Your task to perform on an android device: Go to eBay Image 0: 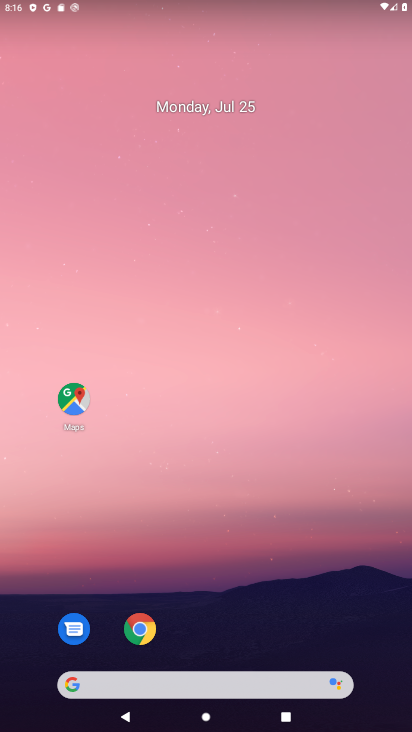
Step 0: click (140, 631)
Your task to perform on an android device: Go to eBay Image 1: 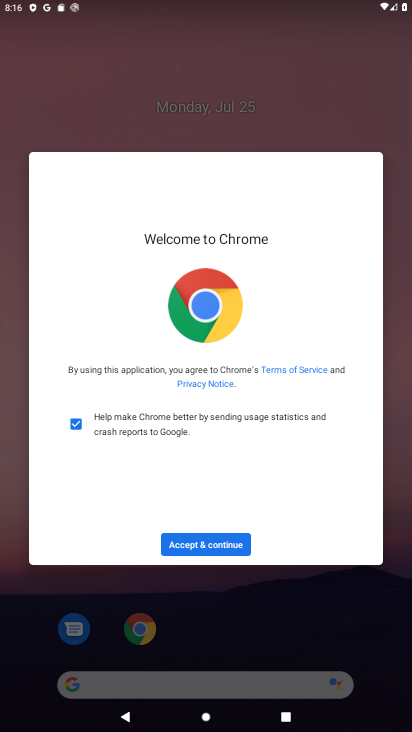
Step 1: click (216, 537)
Your task to perform on an android device: Go to eBay Image 2: 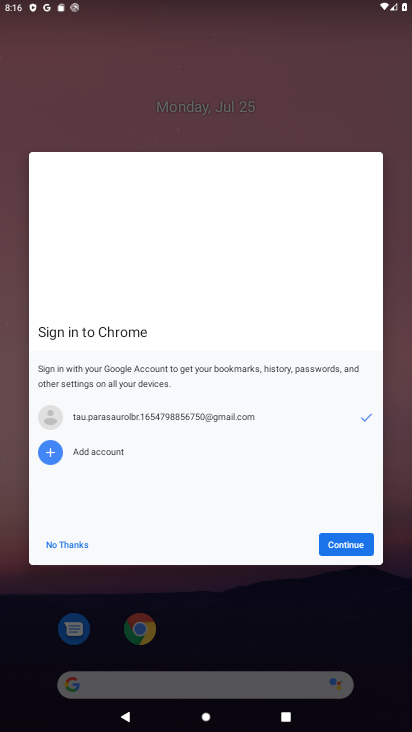
Step 2: click (329, 545)
Your task to perform on an android device: Go to eBay Image 3: 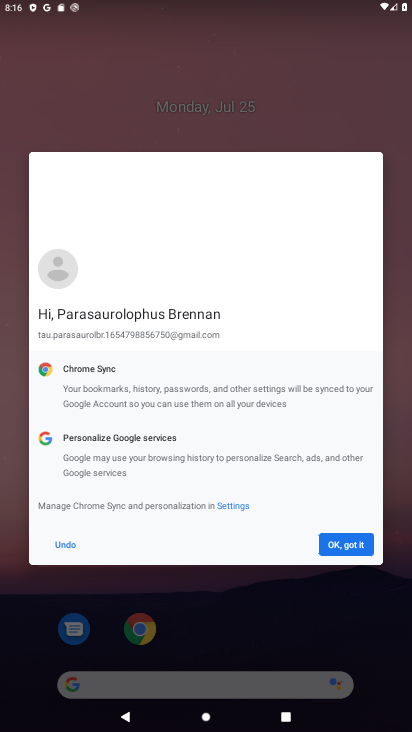
Step 3: click (329, 545)
Your task to perform on an android device: Go to eBay Image 4: 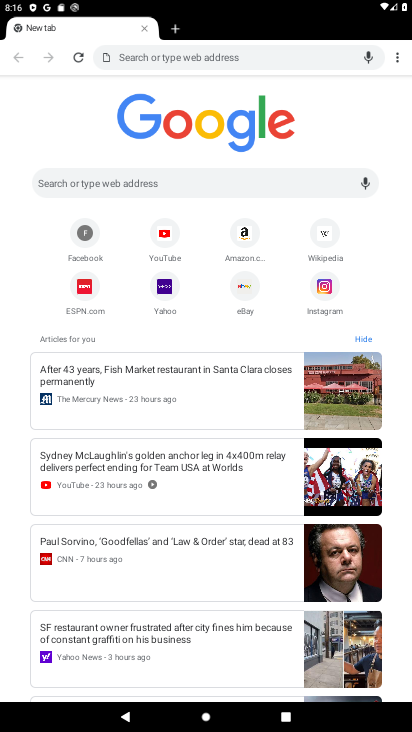
Step 4: click (244, 280)
Your task to perform on an android device: Go to eBay Image 5: 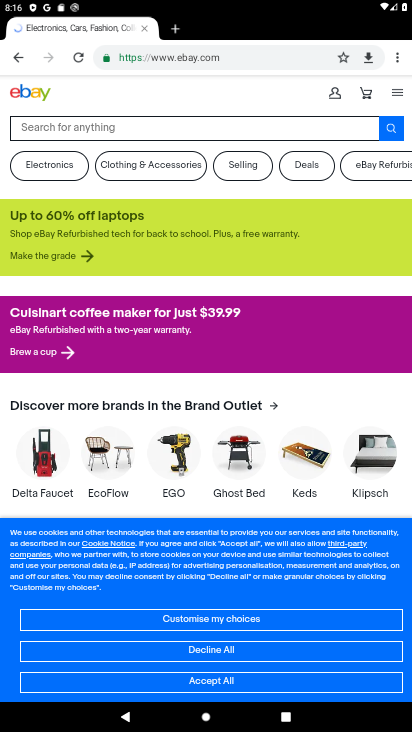
Step 5: task complete